Your task to perform on an android device: Show me popular games on the Play Store Image 0: 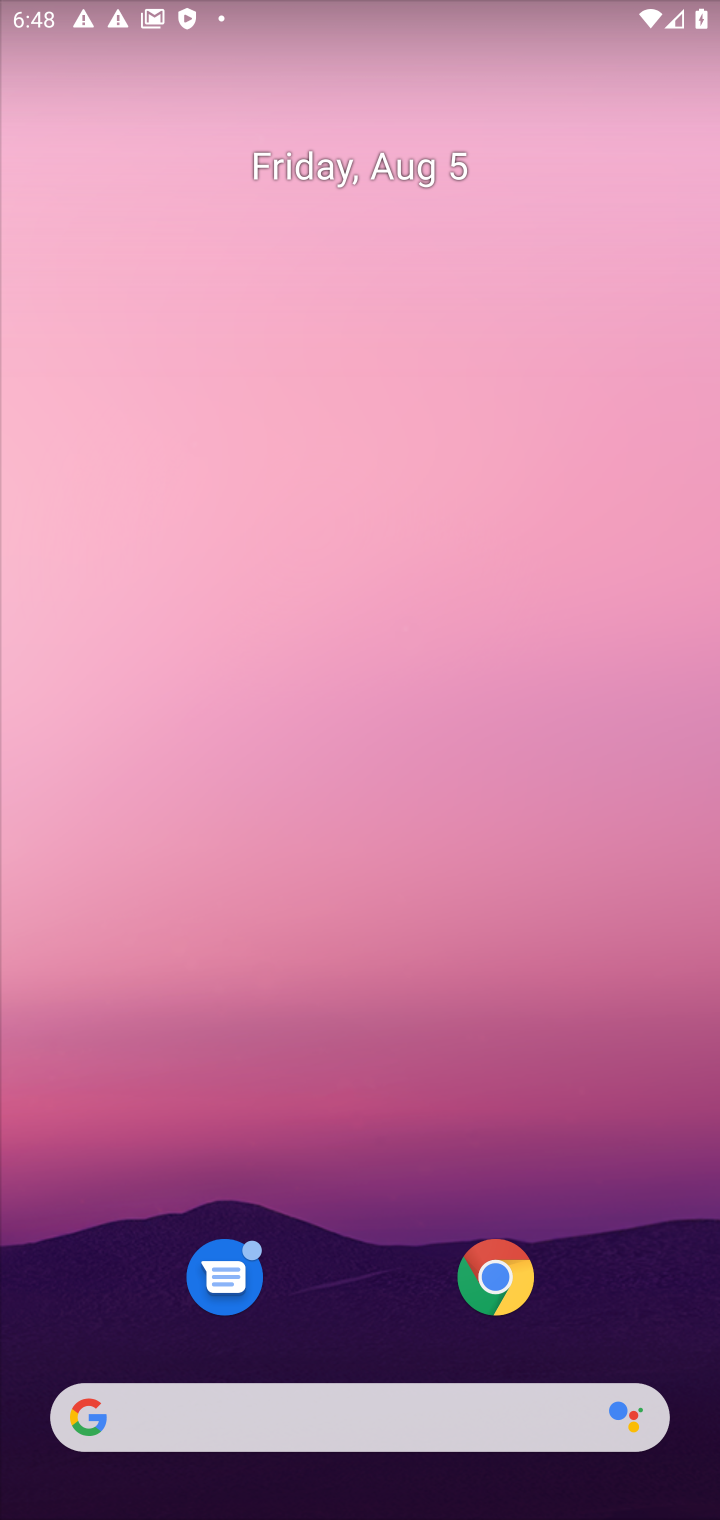
Step 0: drag from (297, 1028) to (322, 48)
Your task to perform on an android device: Show me popular games on the Play Store Image 1: 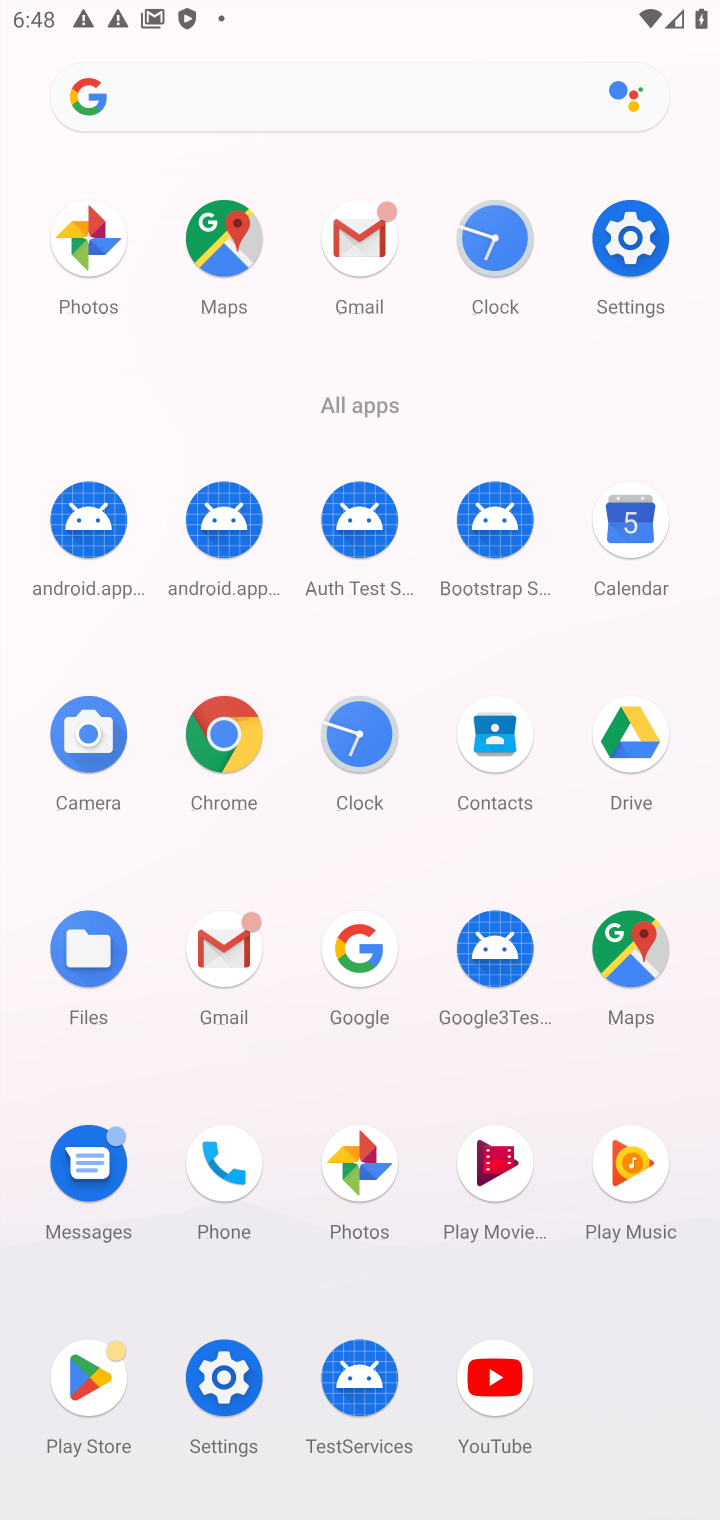
Step 1: click (223, 1378)
Your task to perform on an android device: Show me popular games on the Play Store Image 2: 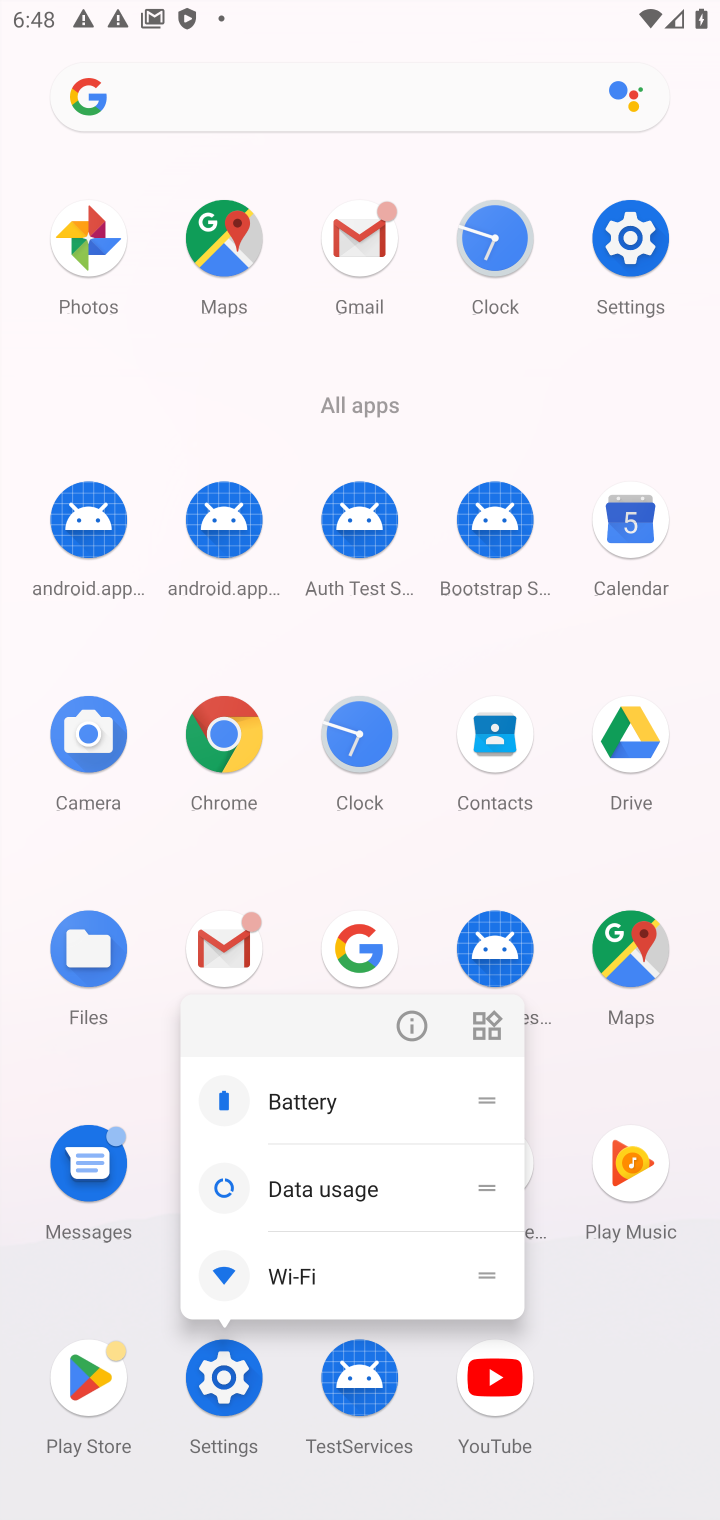
Step 2: click (91, 1377)
Your task to perform on an android device: Show me popular games on the Play Store Image 3: 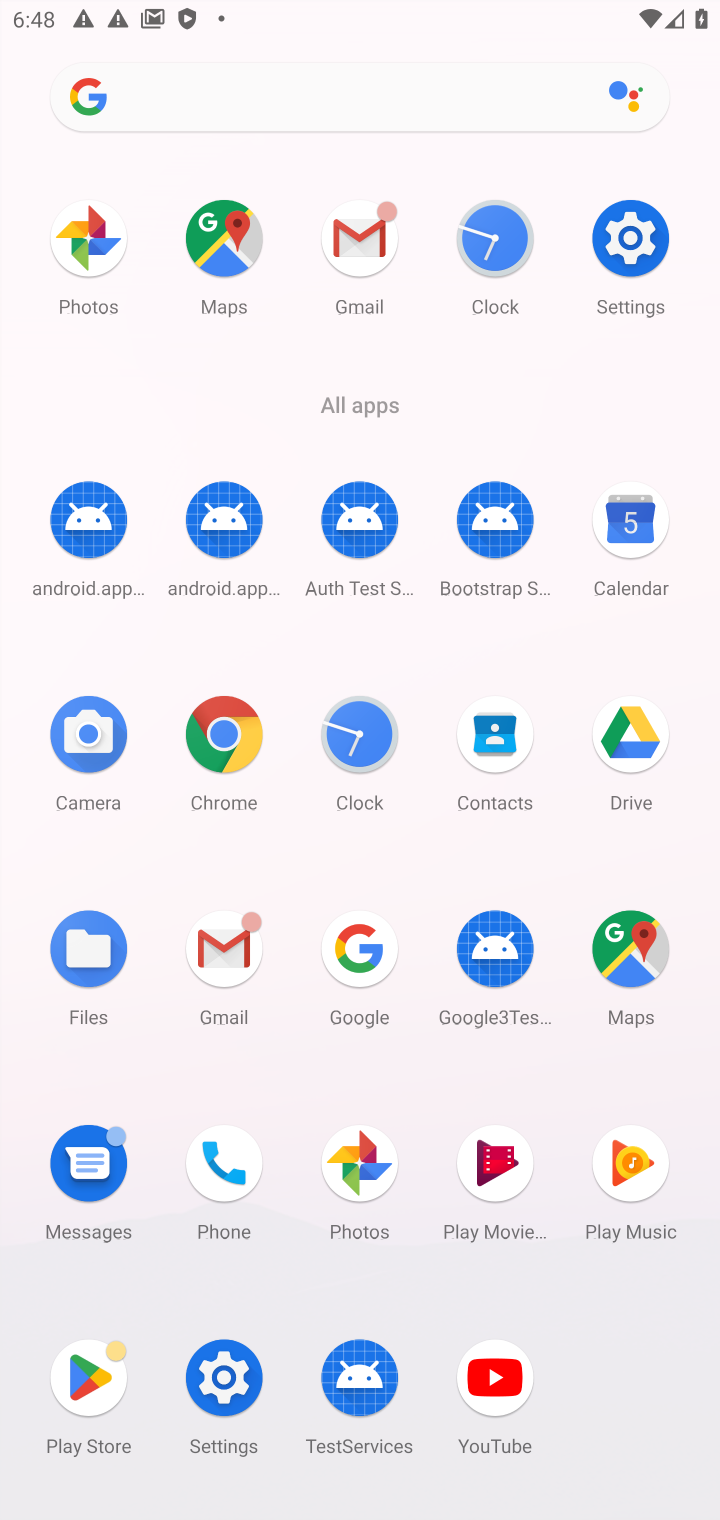
Step 3: click (91, 1377)
Your task to perform on an android device: Show me popular games on the Play Store Image 4: 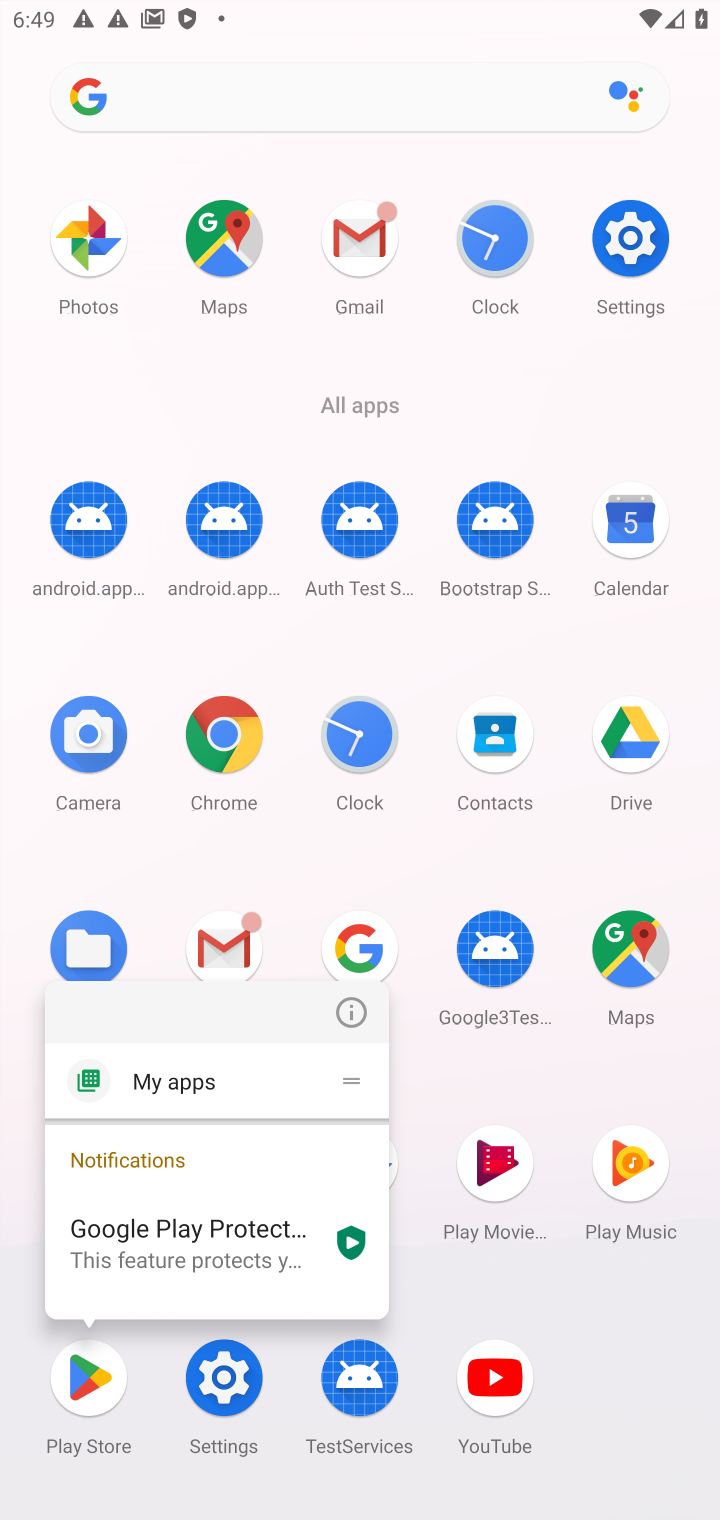
Step 4: click (91, 1377)
Your task to perform on an android device: Show me popular games on the Play Store Image 5: 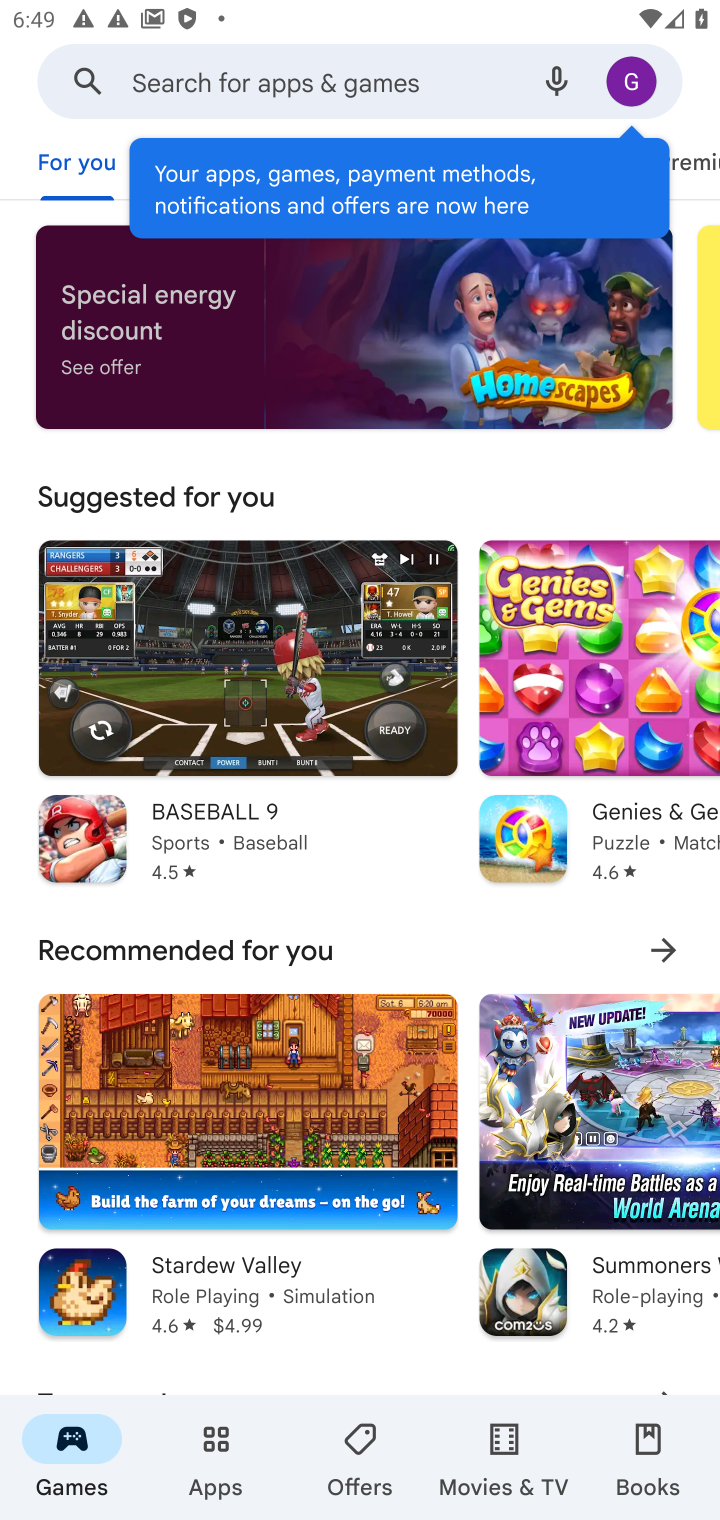
Step 5: drag from (457, 1136) to (422, 390)
Your task to perform on an android device: Show me popular games on the Play Store Image 6: 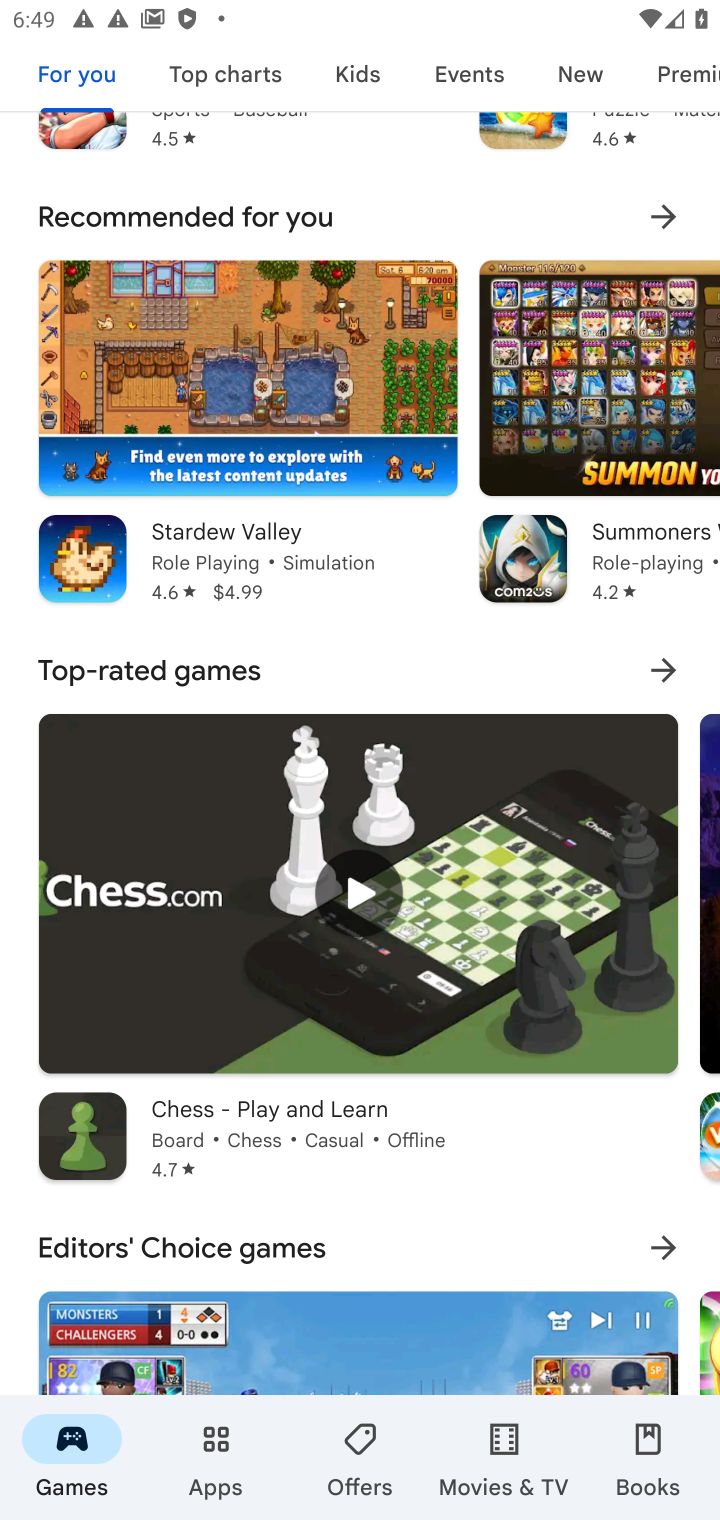
Step 6: click (660, 668)
Your task to perform on an android device: Show me popular games on the Play Store Image 7: 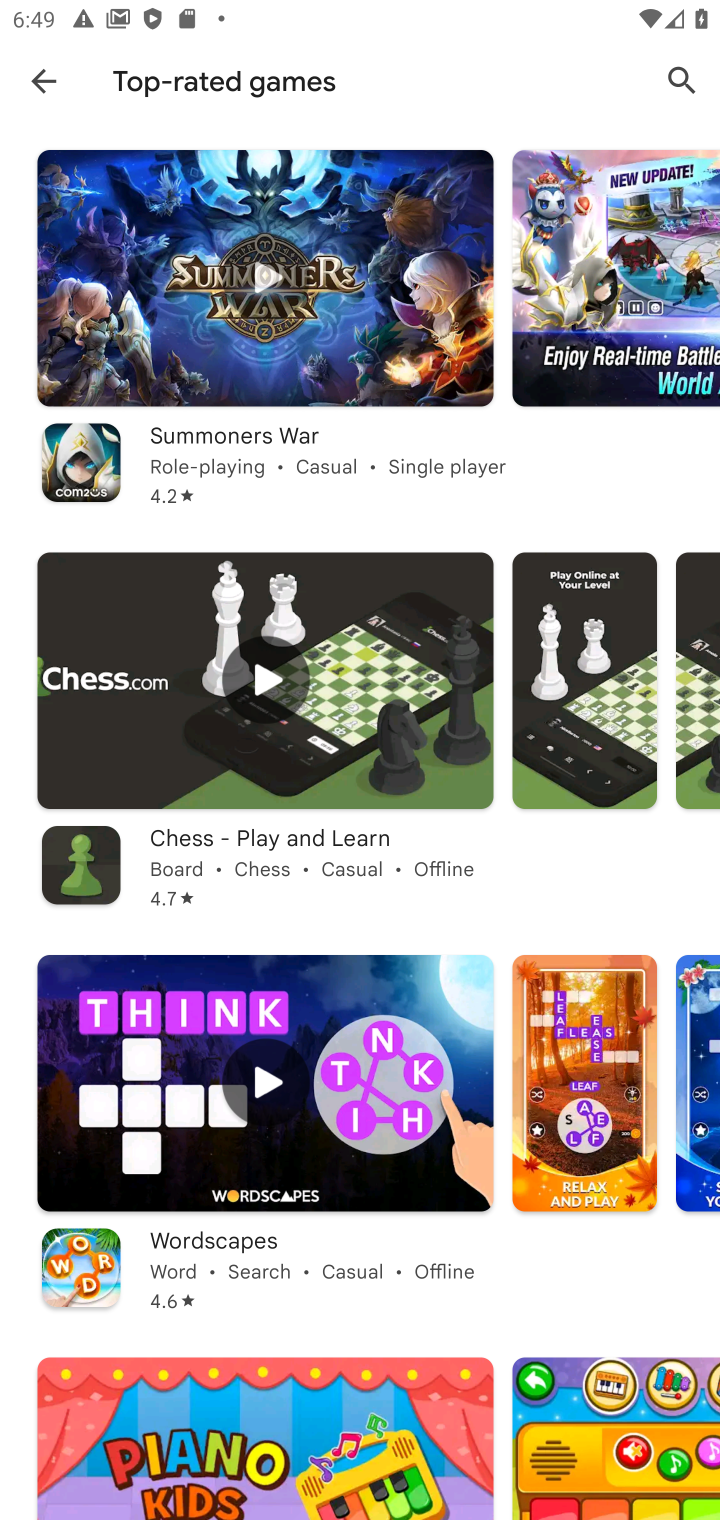
Step 7: task complete